Your task to perform on an android device: Open Google Chrome Image 0: 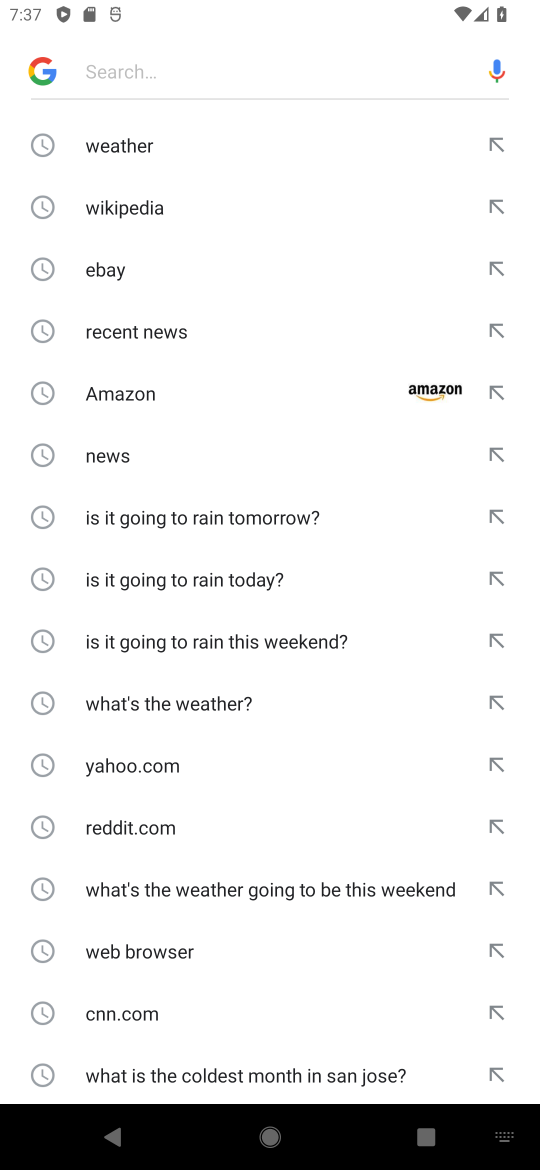
Step 0: press home button
Your task to perform on an android device: Open Google Chrome Image 1: 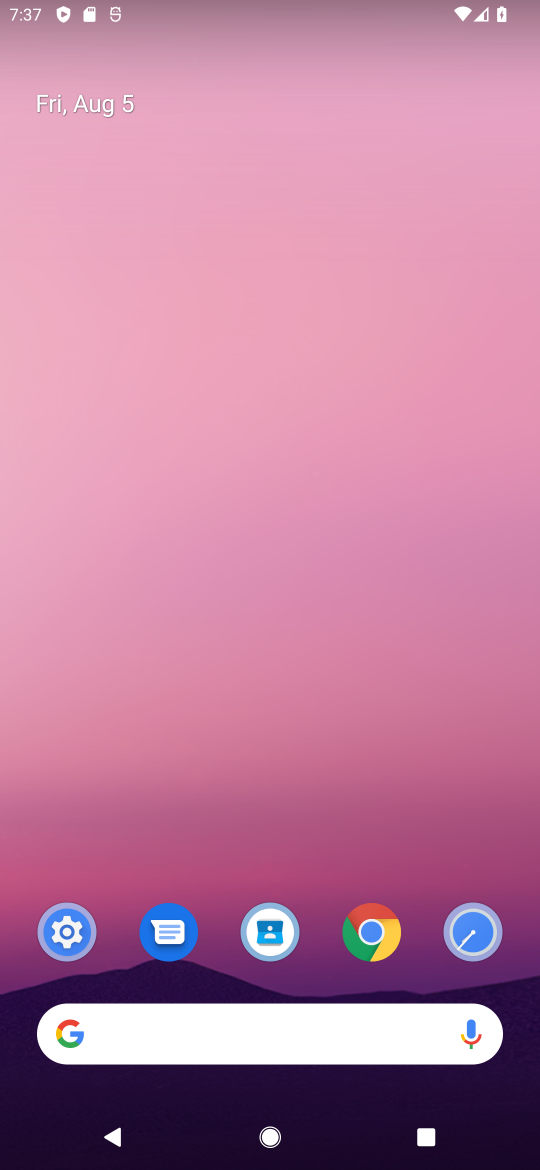
Step 1: drag from (369, 434) to (319, 155)
Your task to perform on an android device: Open Google Chrome Image 2: 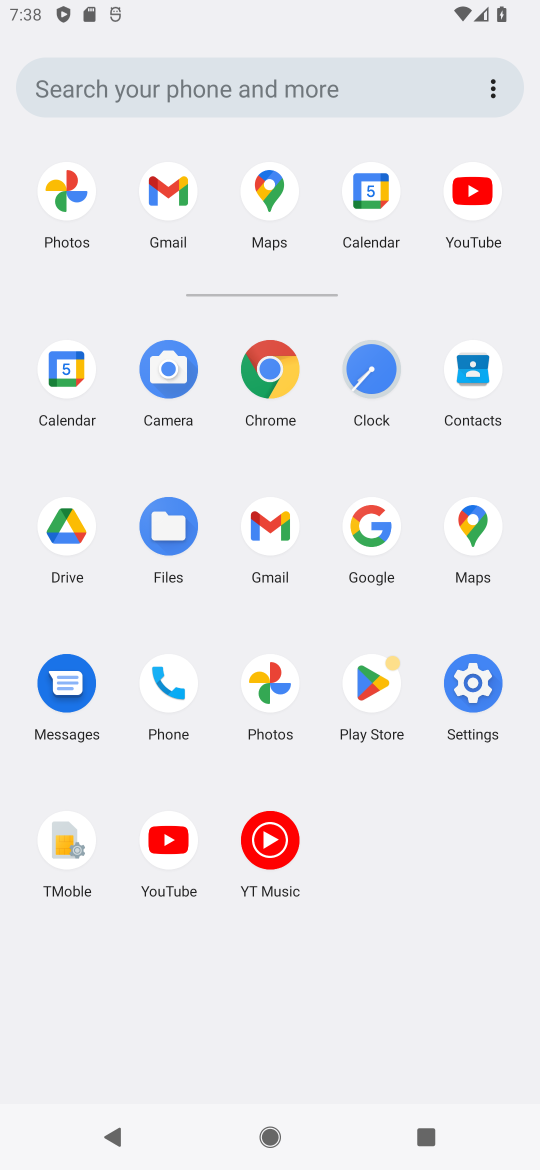
Step 2: click (273, 359)
Your task to perform on an android device: Open Google Chrome Image 3: 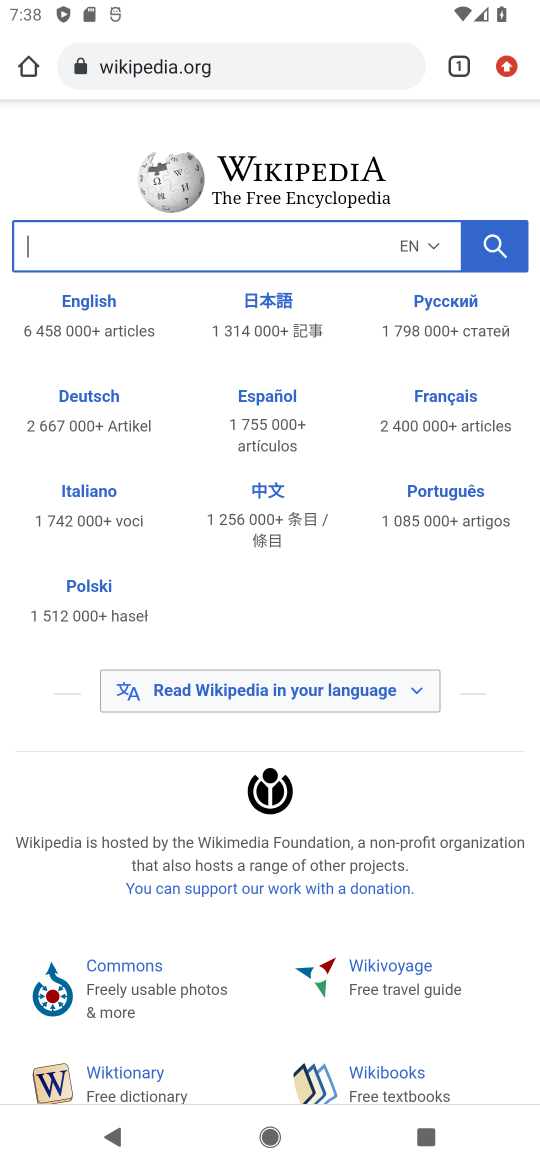
Step 3: task complete